Your task to perform on an android device: Go to Yahoo.com Image 0: 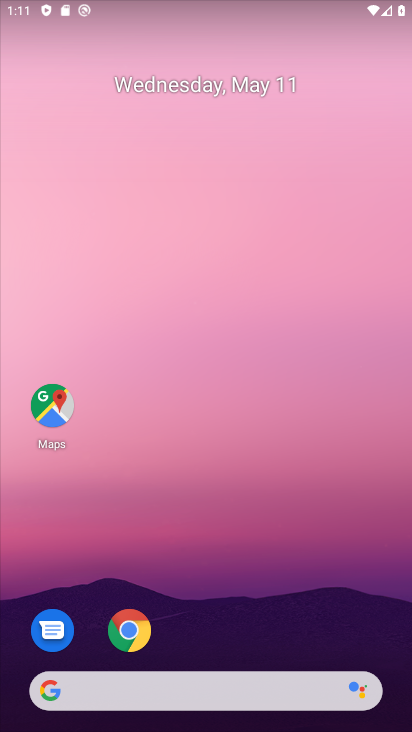
Step 0: click (133, 611)
Your task to perform on an android device: Go to Yahoo.com Image 1: 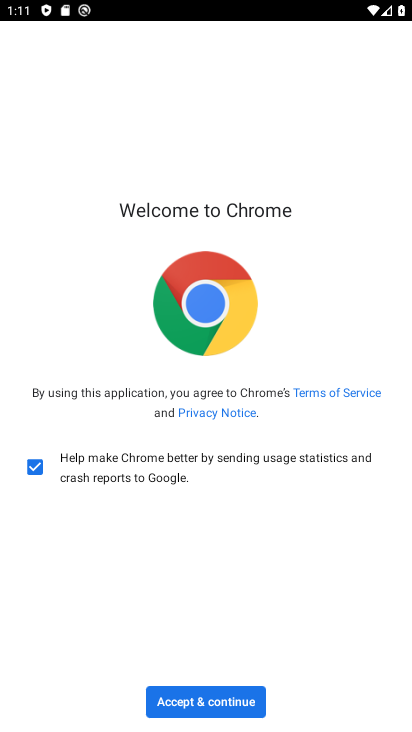
Step 1: click (225, 706)
Your task to perform on an android device: Go to Yahoo.com Image 2: 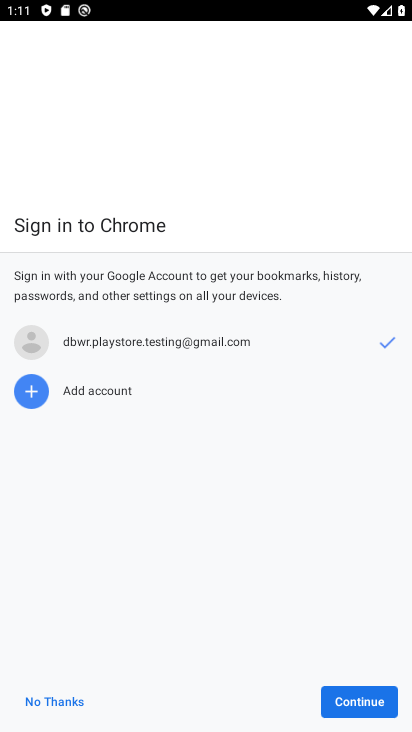
Step 2: click (390, 704)
Your task to perform on an android device: Go to Yahoo.com Image 3: 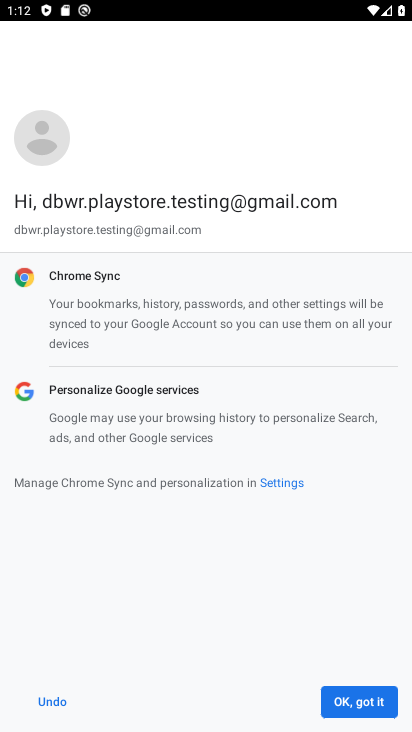
Step 3: click (377, 701)
Your task to perform on an android device: Go to Yahoo.com Image 4: 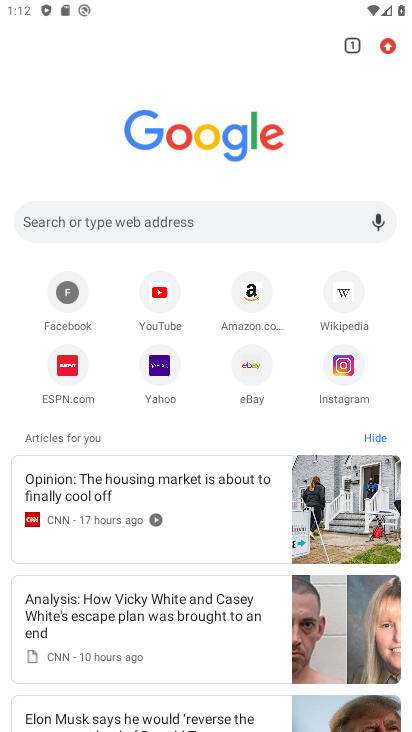
Step 4: click (175, 372)
Your task to perform on an android device: Go to Yahoo.com Image 5: 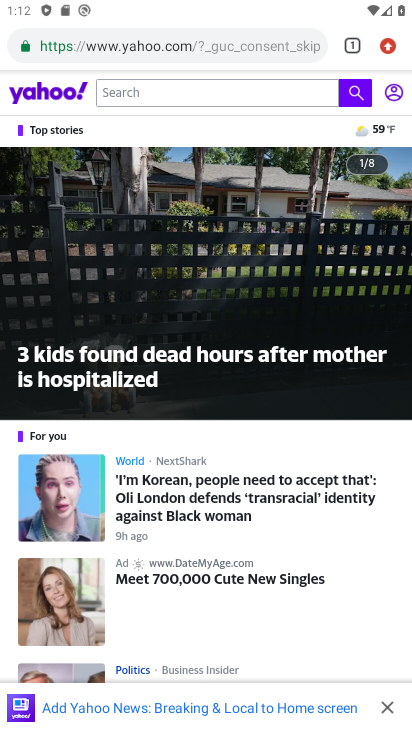
Step 5: task complete